Your task to perform on an android device: Empty the shopping cart on newegg.com. Image 0: 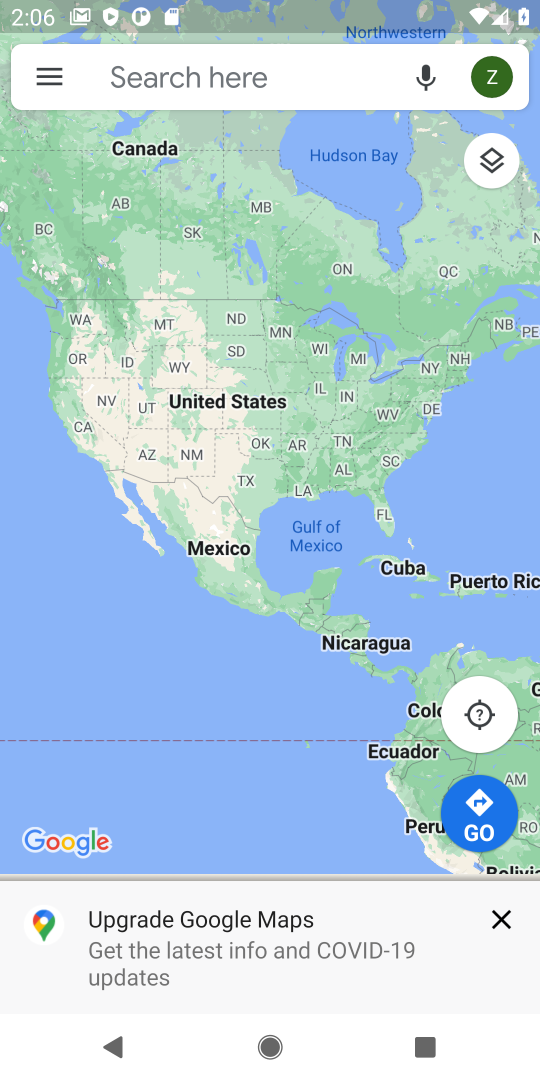
Step 0: press home button
Your task to perform on an android device: Empty the shopping cart on newegg.com. Image 1: 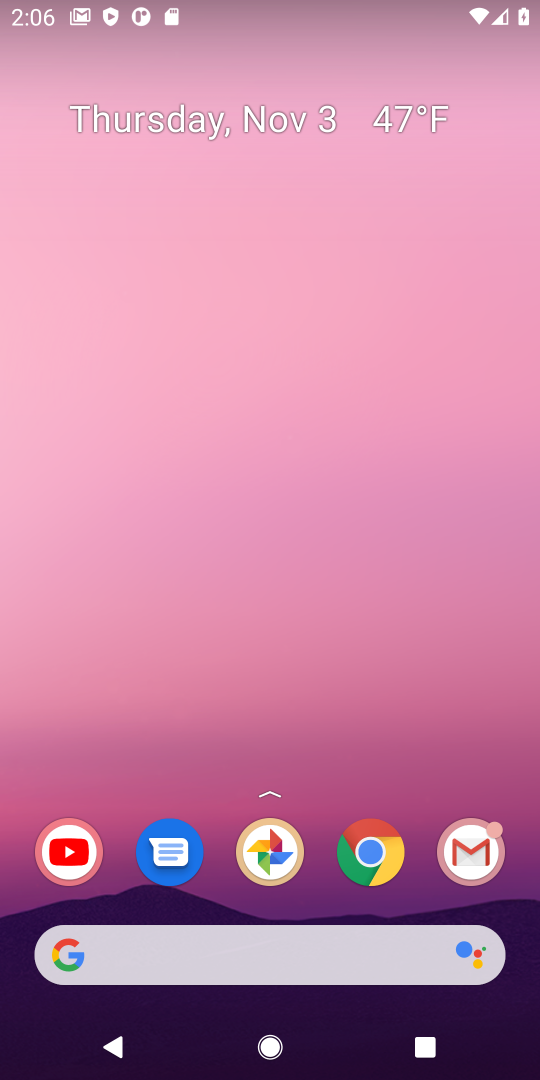
Step 1: click (371, 858)
Your task to perform on an android device: Empty the shopping cart on newegg.com. Image 2: 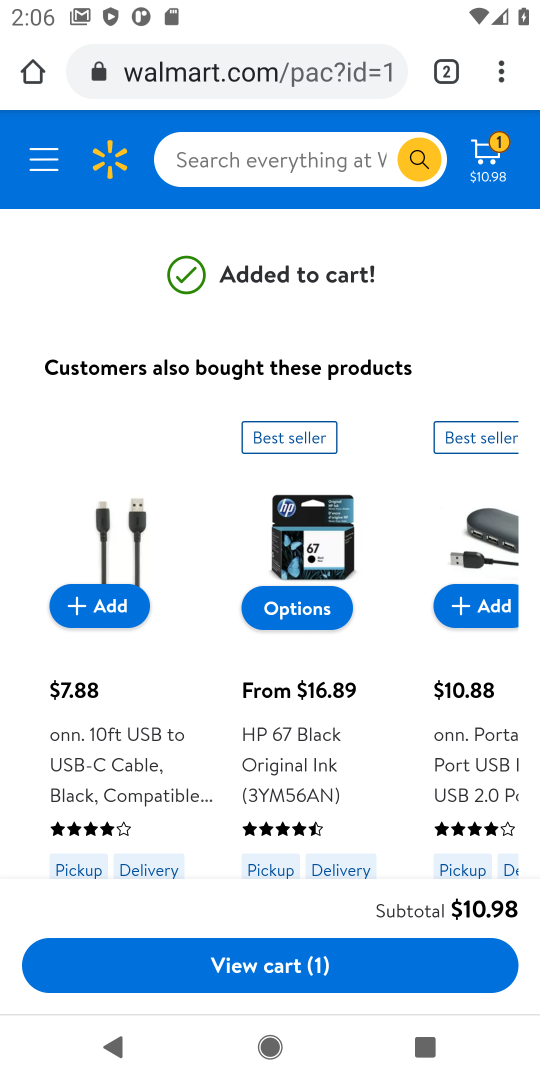
Step 2: click (259, 83)
Your task to perform on an android device: Empty the shopping cart on newegg.com. Image 3: 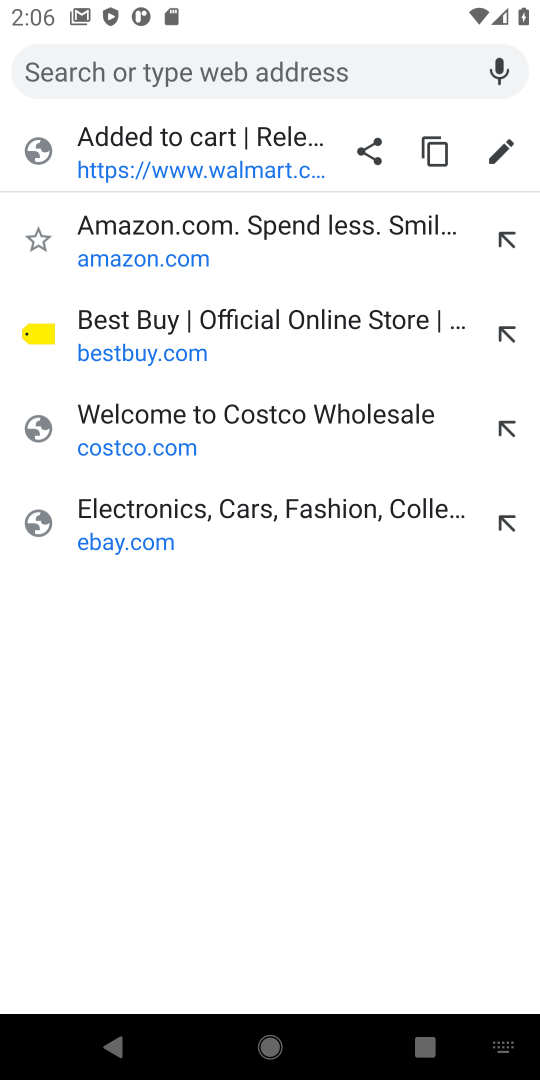
Step 3: type "newegg.com"
Your task to perform on an android device: Empty the shopping cart on newegg.com. Image 4: 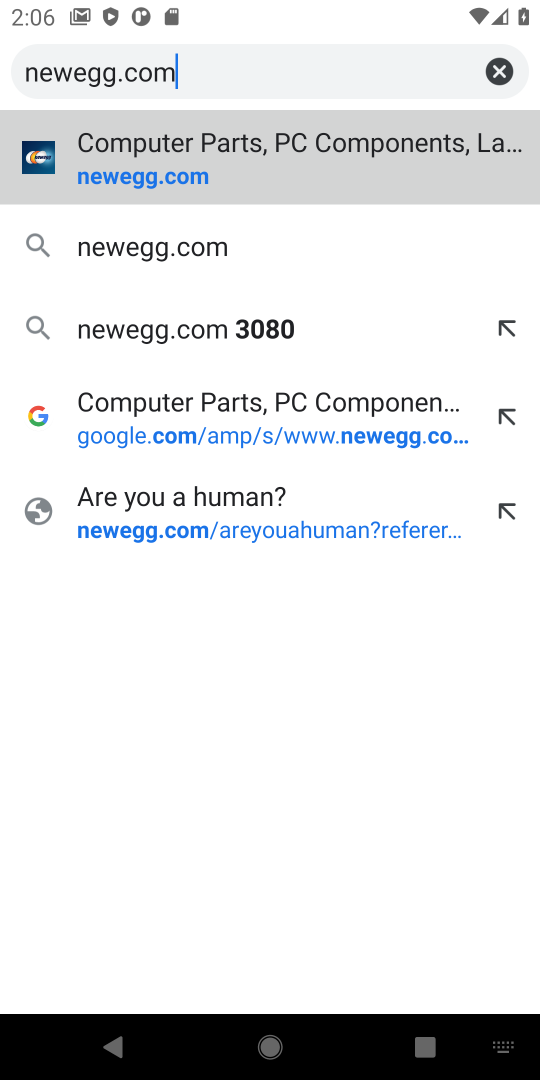
Step 4: click (152, 246)
Your task to perform on an android device: Empty the shopping cart on newegg.com. Image 5: 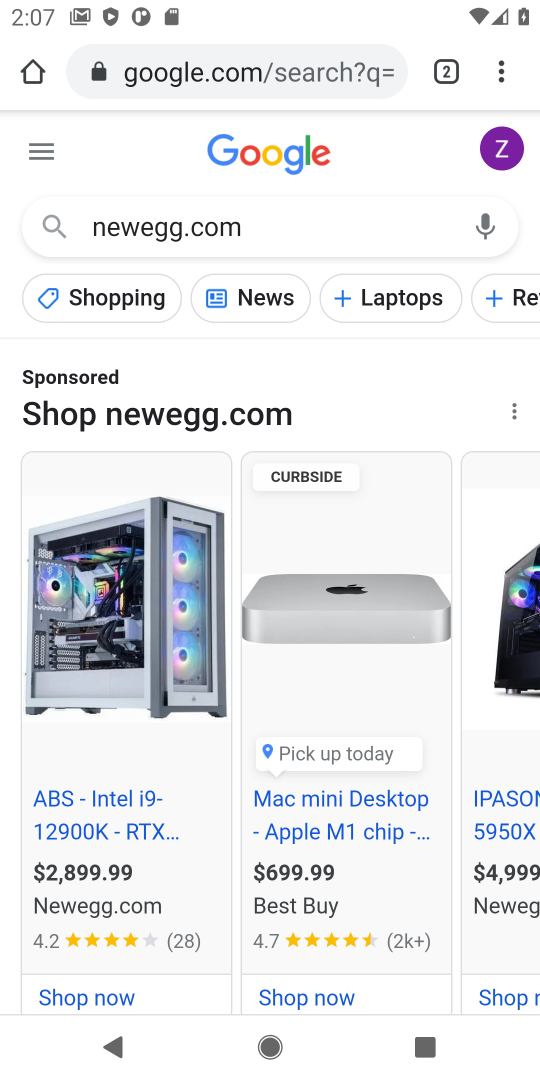
Step 5: drag from (260, 737) to (247, 175)
Your task to perform on an android device: Empty the shopping cart on newegg.com. Image 6: 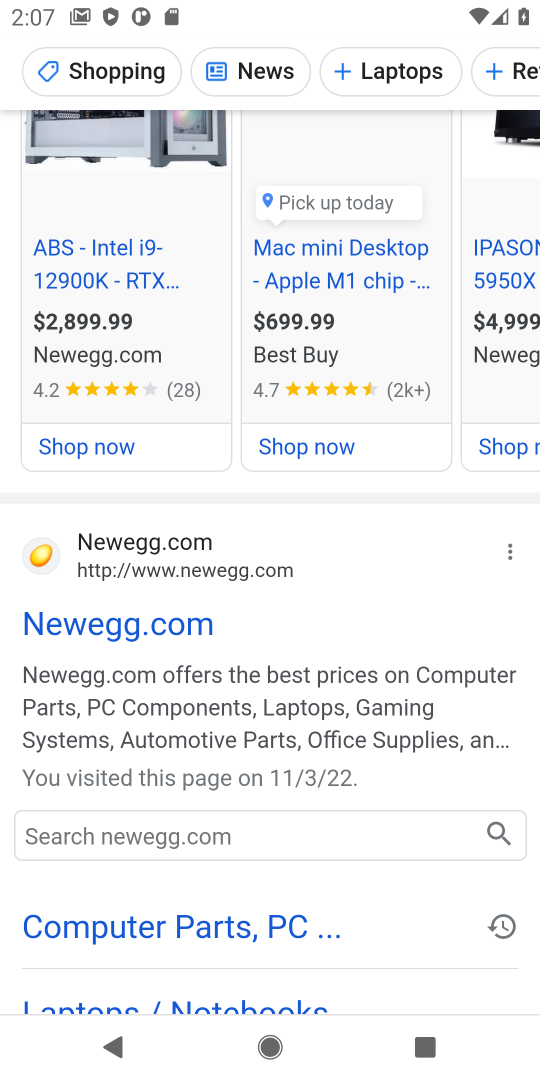
Step 6: click (152, 568)
Your task to perform on an android device: Empty the shopping cart on newegg.com. Image 7: 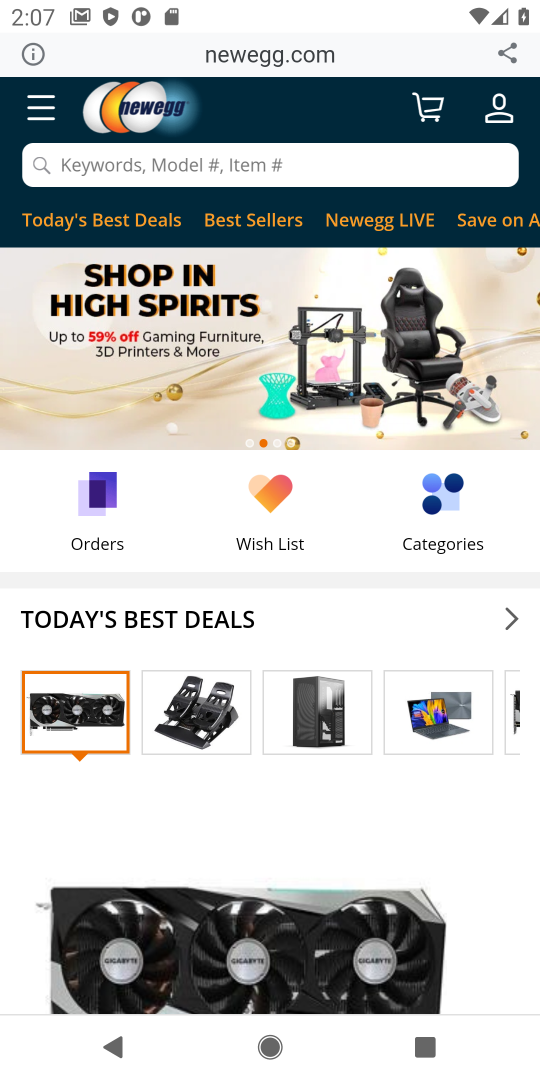
Step 7: click (434, 112)
Your task to perform on an android device: Empty the shopping cart on newegg.com. Image 8: 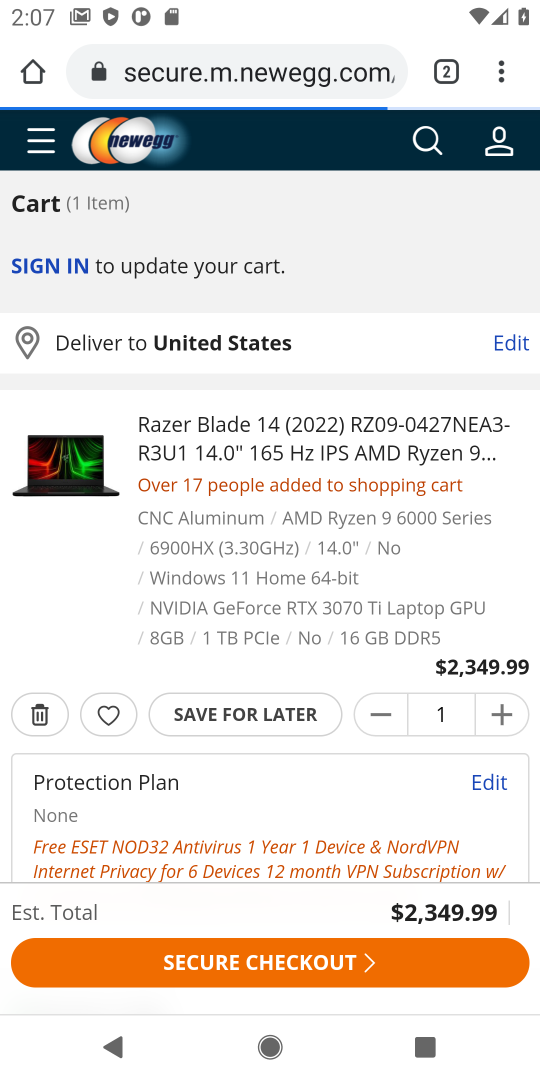
Step 8: click (32, 715)
Your task to perform on an android device: Empty the shopping cart on newegg.com. Image 9: 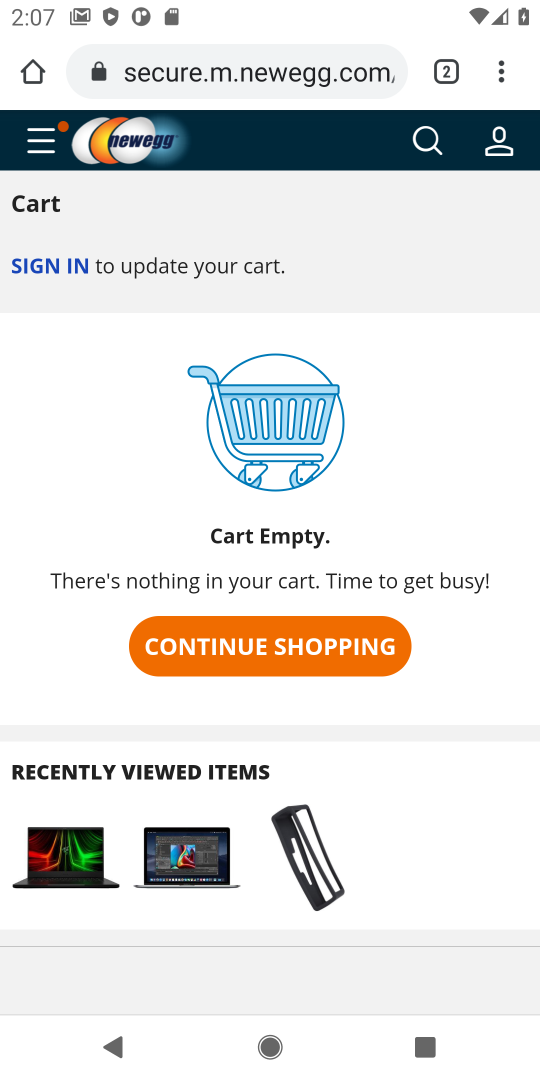
Step 9: task complete